Your task to perform on an android device: change alarm snooze length Image 0: 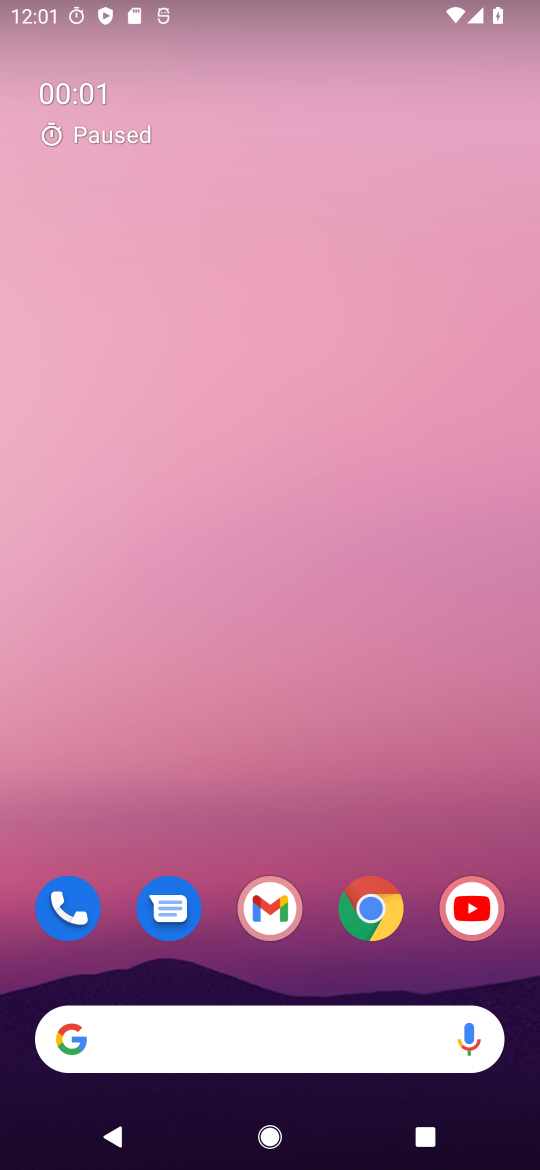
Step 0: drag from (323, 948) to (332, 152)
Your task to perform on an android device: change alarm snooze length Image 1: 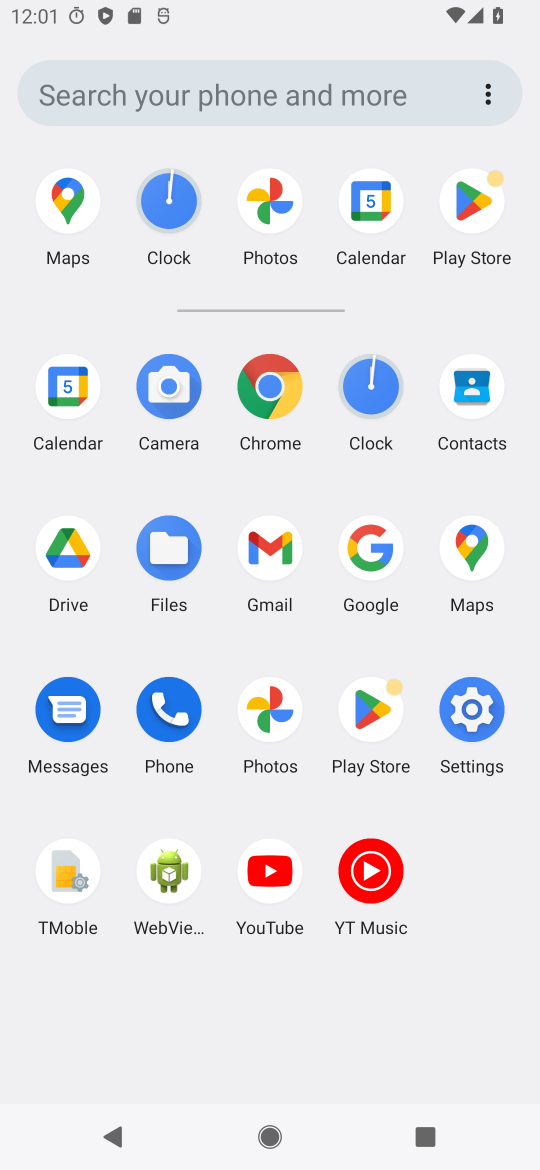
Step 1: click (378, 379)
Your task to perform on an android device: change alarm snooze length Image 2: 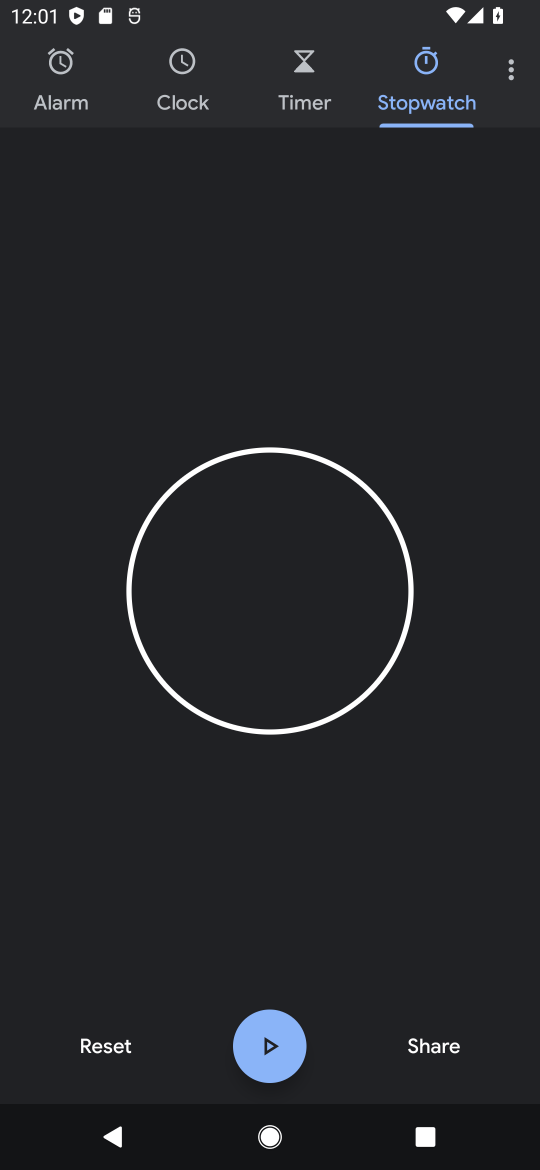
Step 2: click (508, 81)
Your task to perform on an android device: change alarm snooze length Image 3: 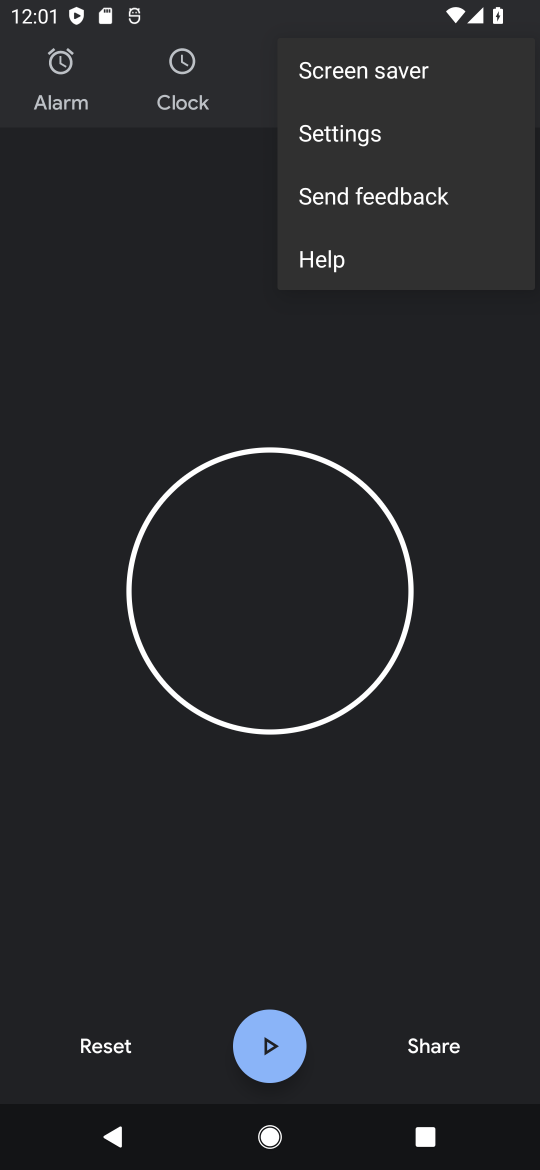
Step 3: click (336, 150)
Your task to perform on an android device: change alarm snooze length Image 4: 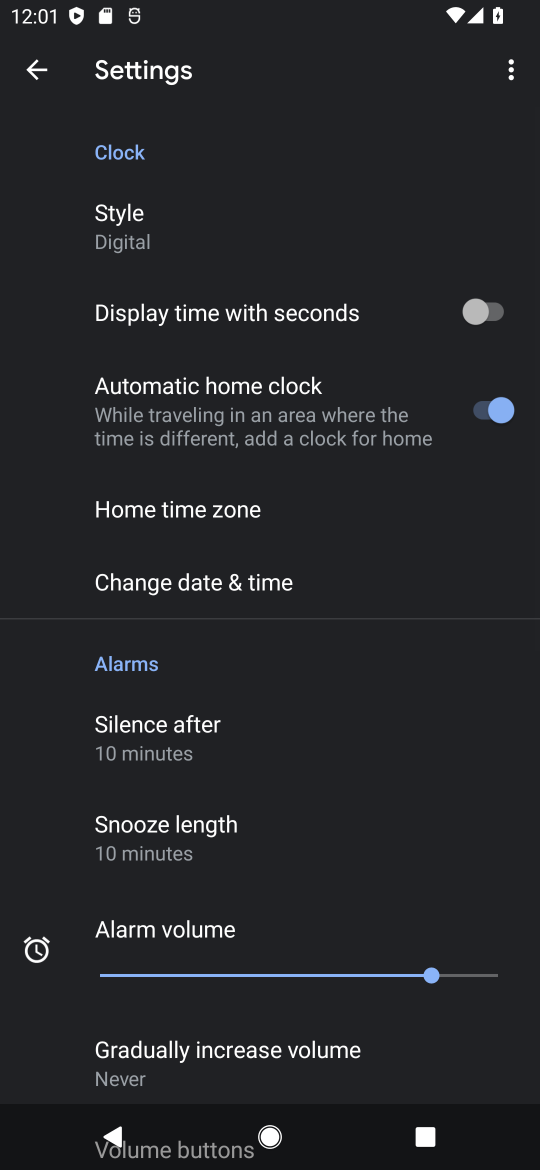
Step 4: drag from (361, 727) to (412, 129)
Your task to perform on an android device: change alarm snooze length Image 5: 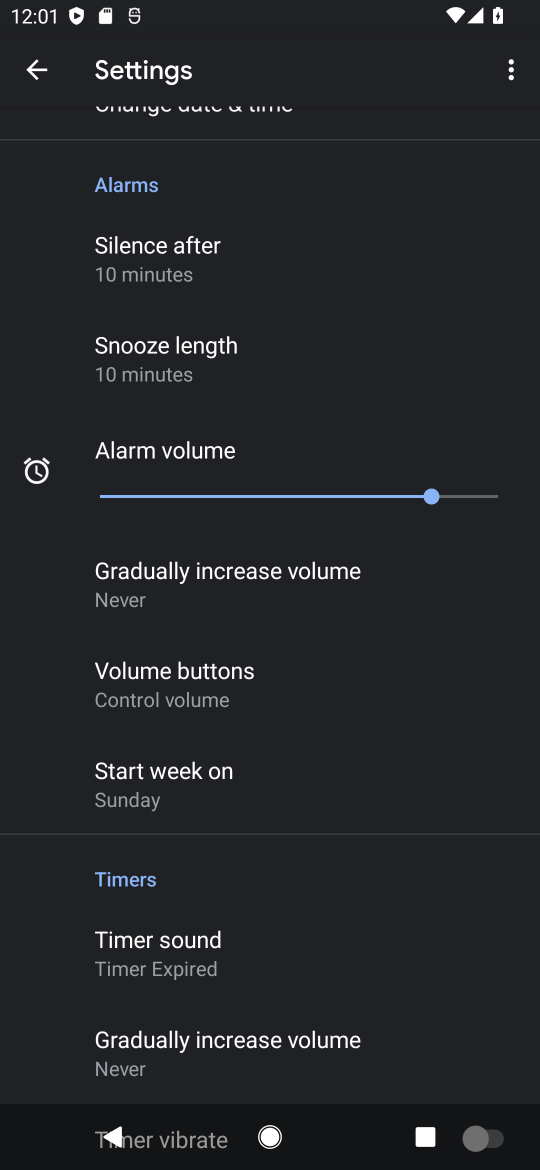
Step 5: click (205, 359)
Your task to perform on an android device: change alarm snooze length Image 6: 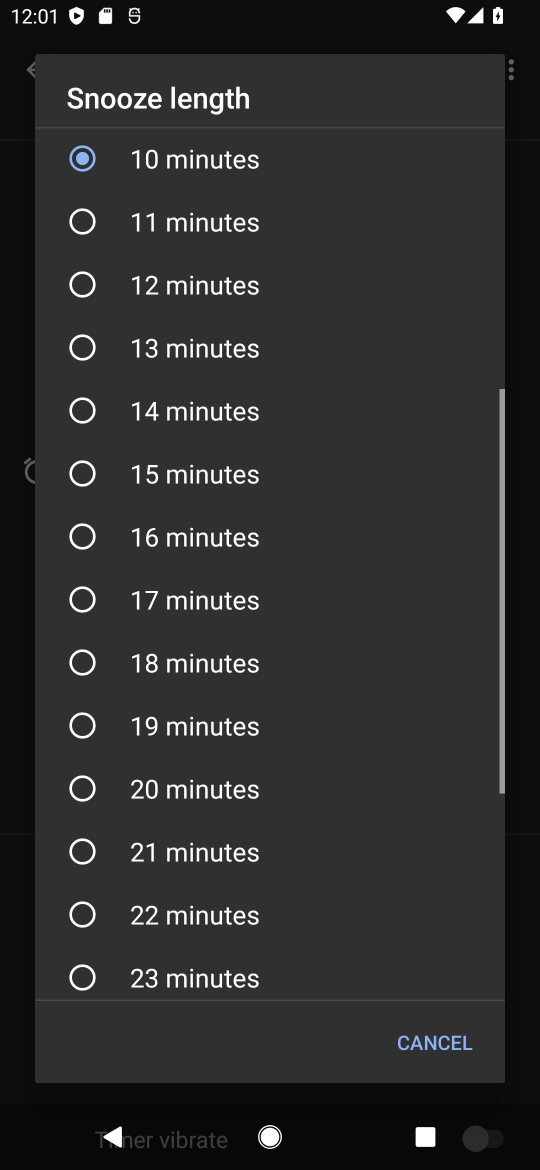
Step 6: click (214, 228)
Your task to perform on an android device: change alarm snooze length Image 7: 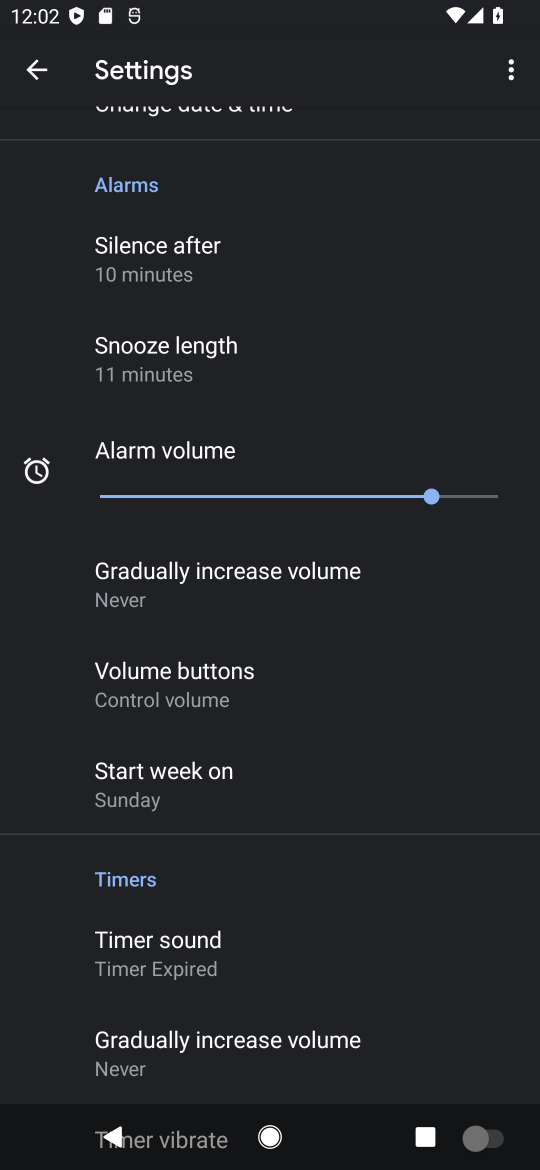
Step 7: task complete